Your task to perform on an android device: See recent photos Image 0: 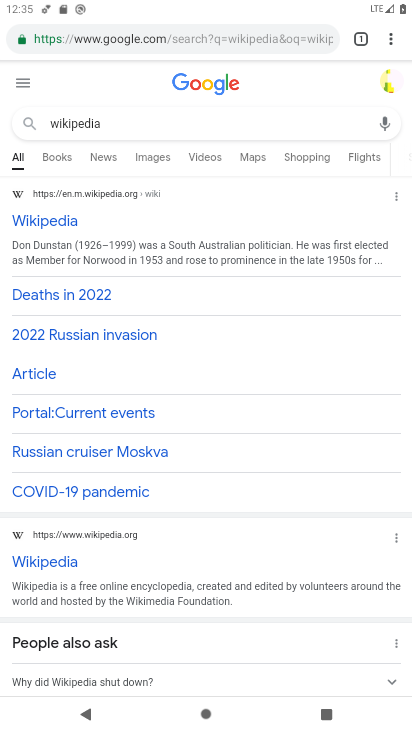
Step 0: press home button
Your task to perform on an android device: See recent photos Image 1: 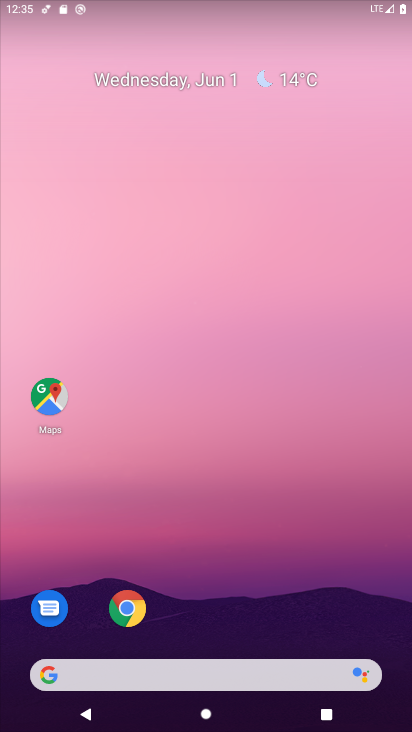
Step 1: drag from (255, 564) to (270, 421)
Your task to perform on an android device: See recent photos Image 2: 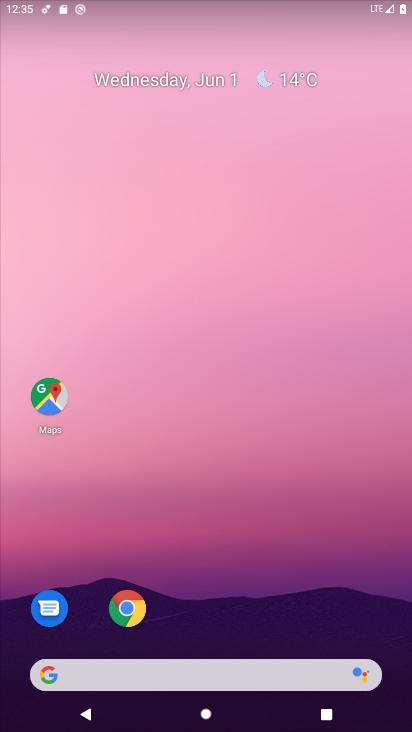
Step 2: drag from (224, 630) to (341, 15)
Your task to perform on an android device: See recent photos Image 3: 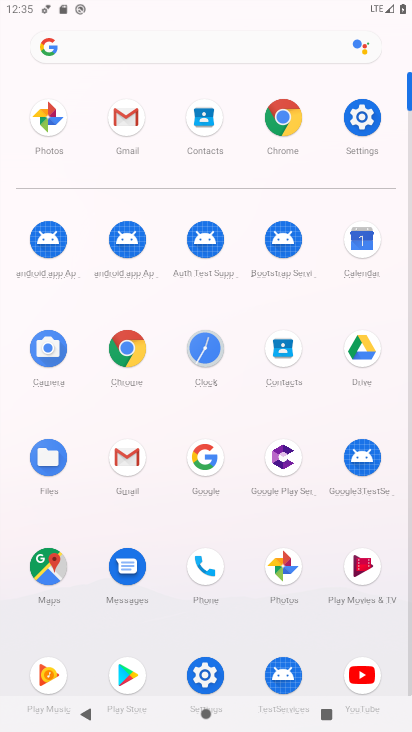
Step 3: click (287, 570)
Your task to perform on an android device: See recent photos Image 4: 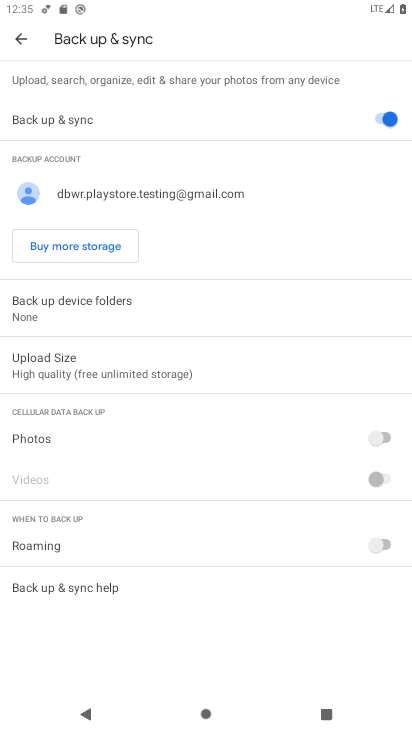
Step 4: click (13, 45)
Your task to perform on an android device: See recent photos Image 5: 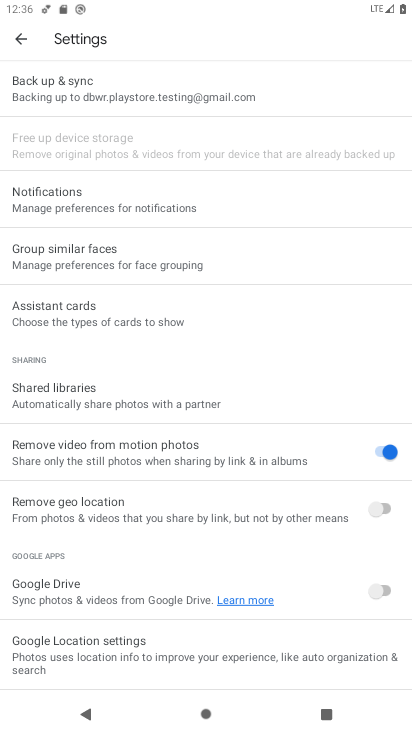
Step 5: click (16, 25)
Your task to perform on an android device: See recent photos Image 6: 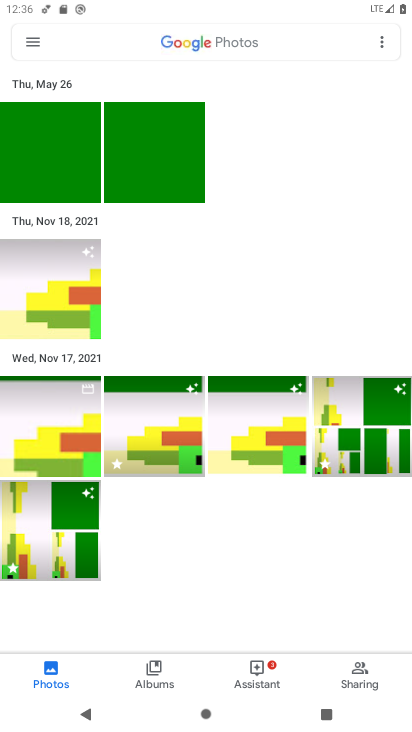
Step 6: task complete